Your task to perform on an android device: turn pop-ups on in chrome Image 0: 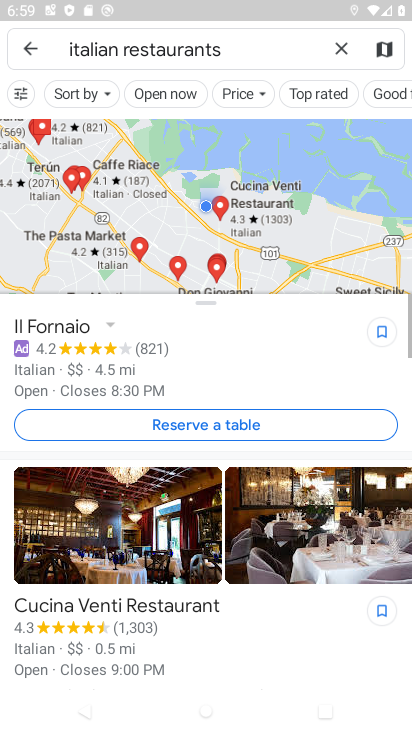
Step 0: press home button
Your task to perform on an android device: turn pop-ups on in chrome Image 1: 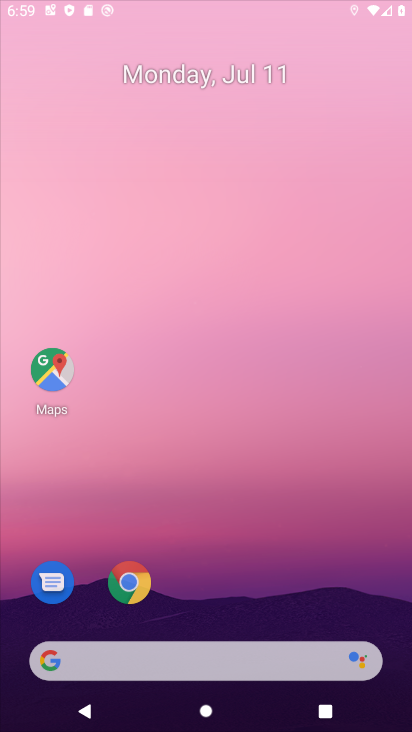
Step 1: drag from (378, 650) to (292, 8)
Your task to perform on an android device: turn pop-ups on in chrome Image 2: 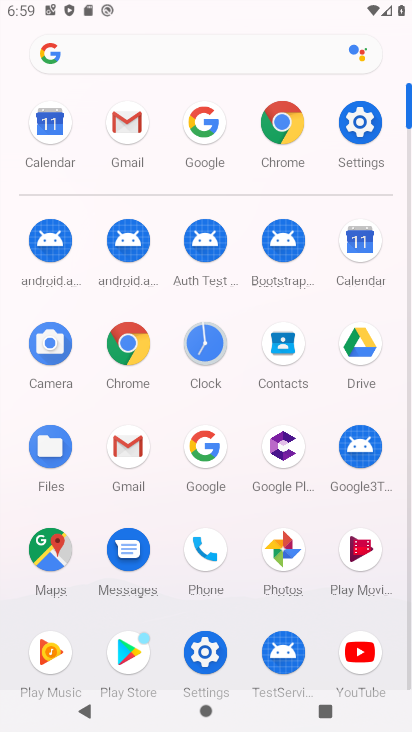
Step 2: click (278, 108)
Your task to perform on an android device: turn pop-ups on in chrome Image 3: 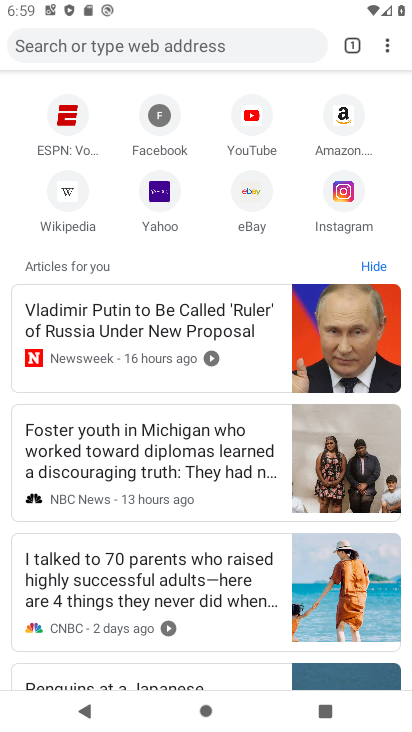
Step 3: click (385, 45)
Your task to perform on an android device: turn pop-ups on in chrome Image 4: 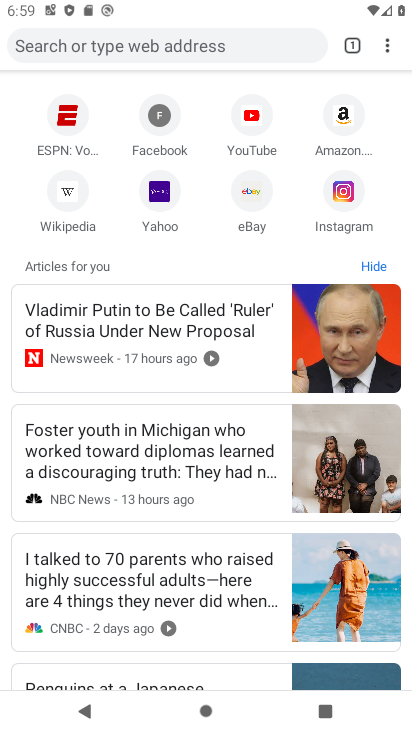
Step 4: click (385, 45)
Your task to perform on an android device: turn pop-ups on in chrome Image 5: 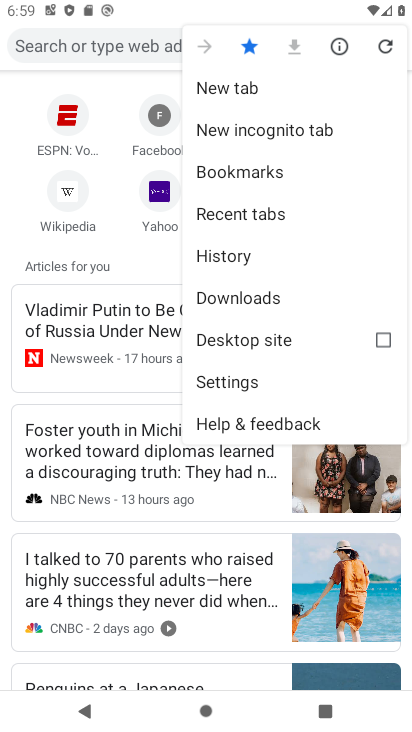
Step 5: click (267, 382)
Your task to perform on an android device: turn pop-ups on in chrome Image 6: 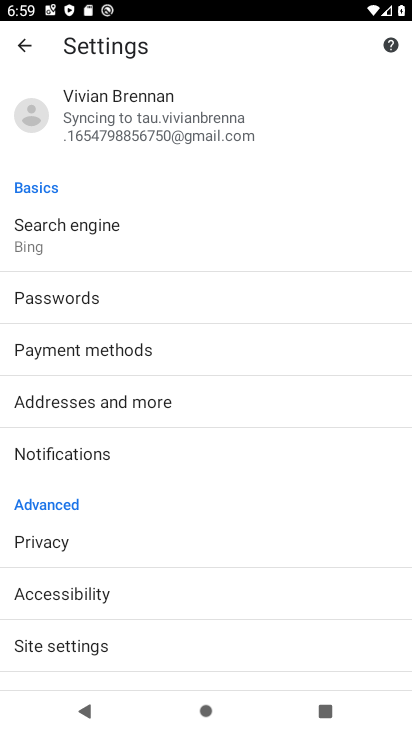
Step 6: drag from (68, 653) to (181, 84)
Your task to perform on an android device: turn pop-ups on in chrome Image 7: 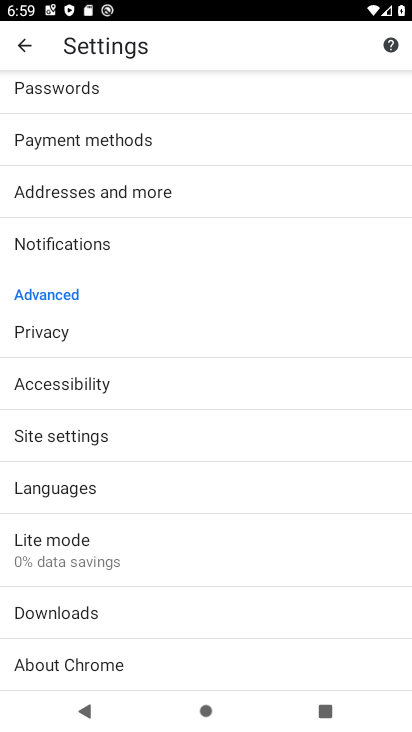
Step 7: click (50, 433)
Your task to perform on an android device: turn pop-ups on in chrome Image 8: 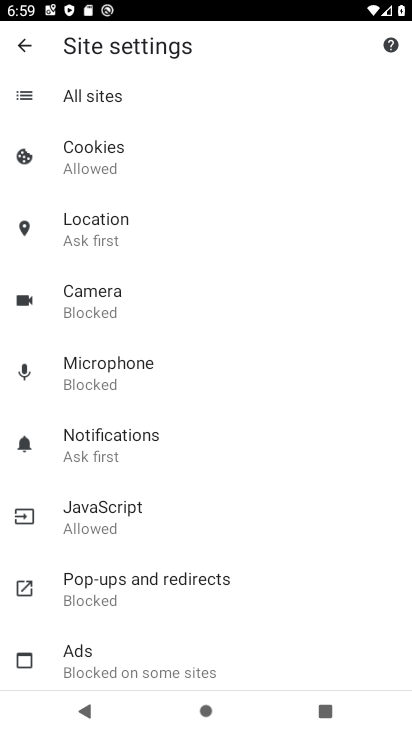
Step 8: click (171, 598)
Your task to perform on an android device: turn pop-ups on in chrome Image 9: 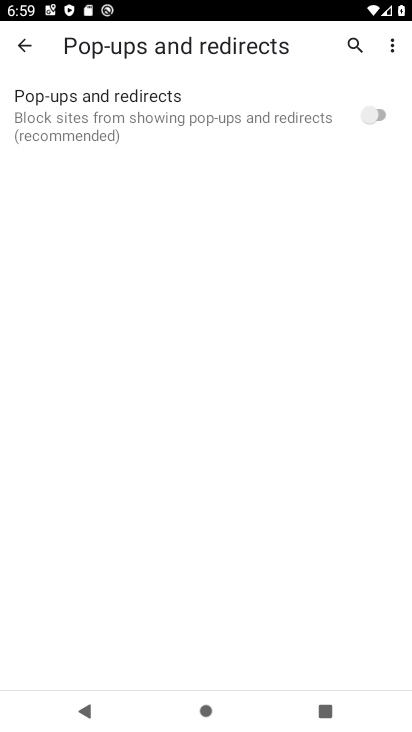
Step 9: click (361, 118)
Your task to perform on an android device: turn pop-ups on in chrome Image 10: 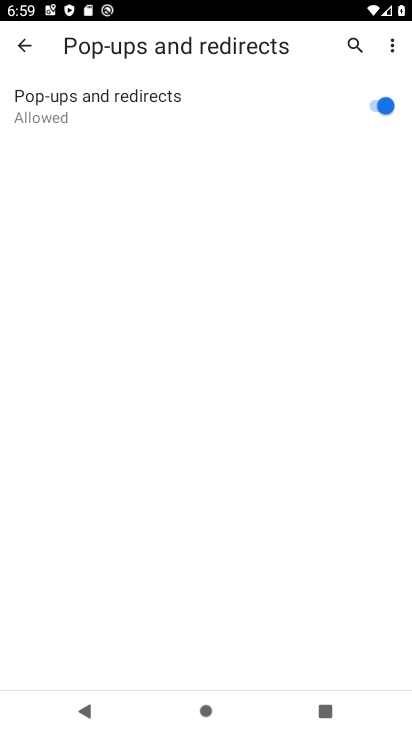
Step 10: task complete